Your task to perform on an android device: turn off javascript in the chrome app Image 0: 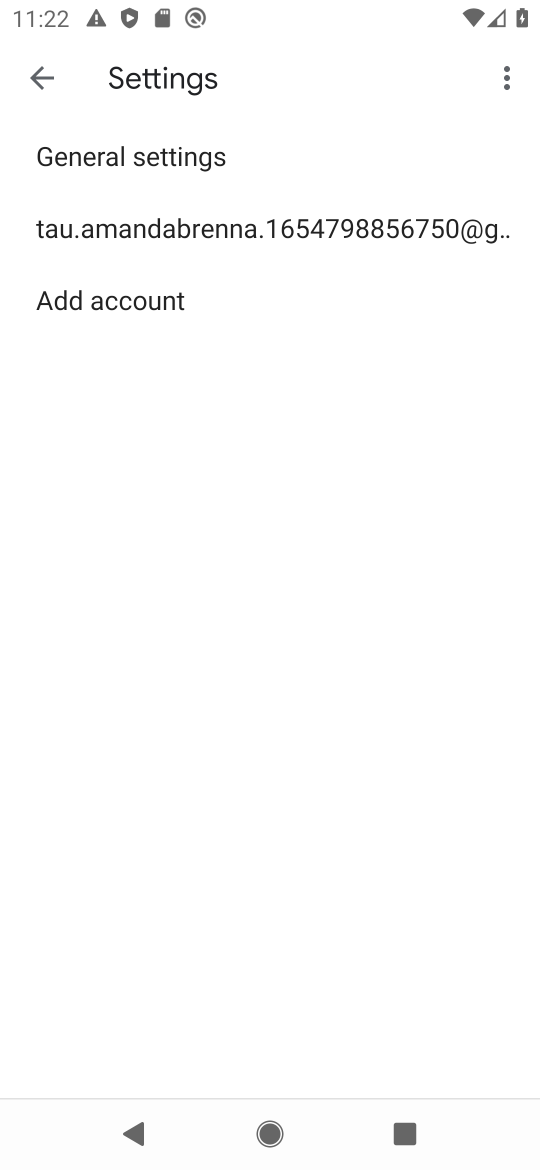
Step 0: press home button
Your task to perform on an android device: turn off javascript in the chrome app Image 1: 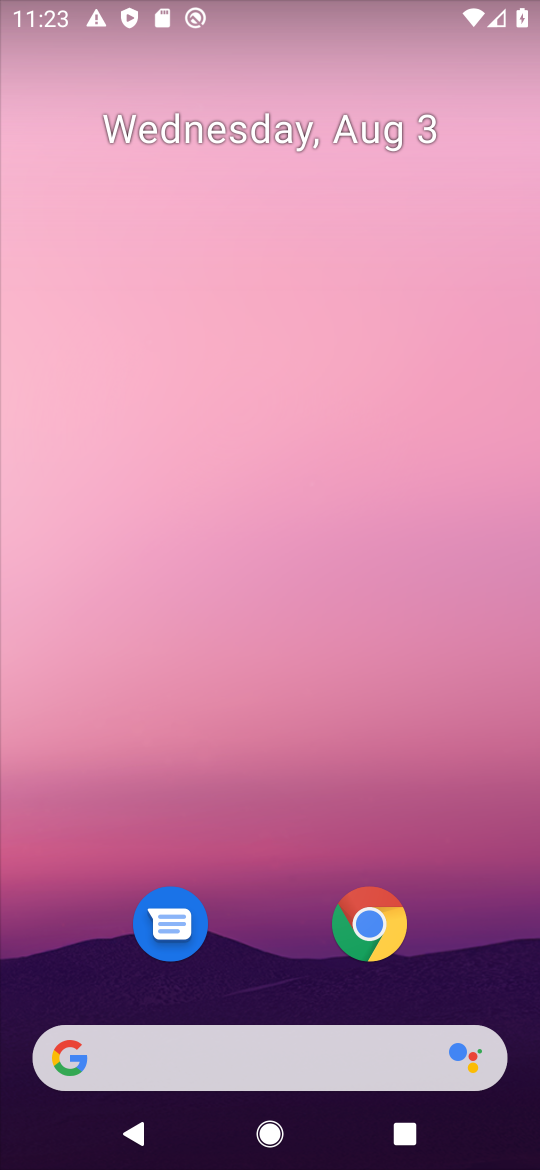
Step 1: click (360, 911)
Your task to perform on an android device: turn off javascript in the chrome app Image 2: 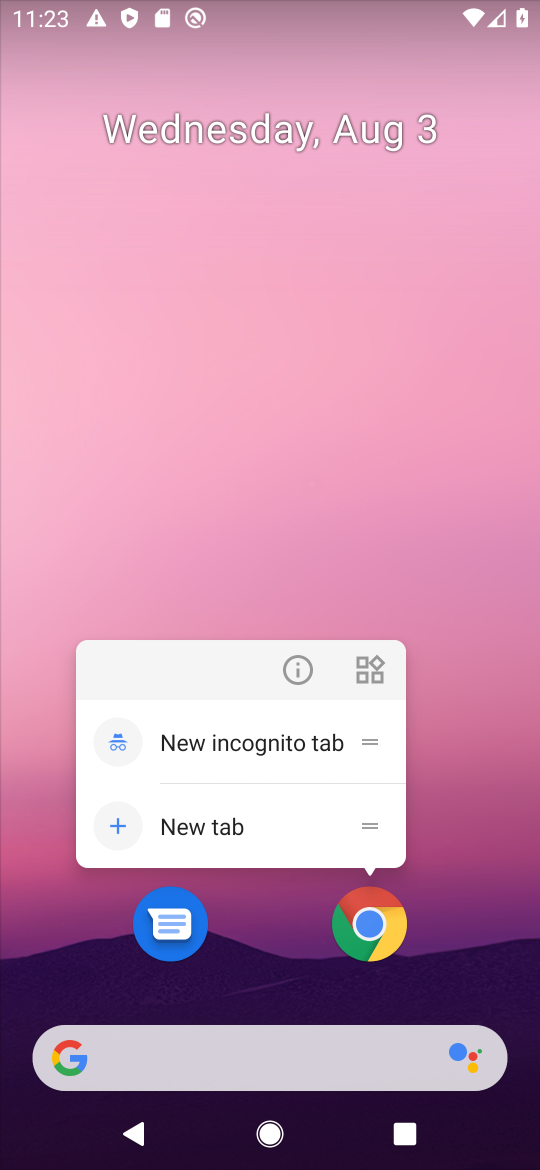
Step 2: click (393, 930)
Your task to perform on an android device: turn off javascript in the chrome app Image 3: 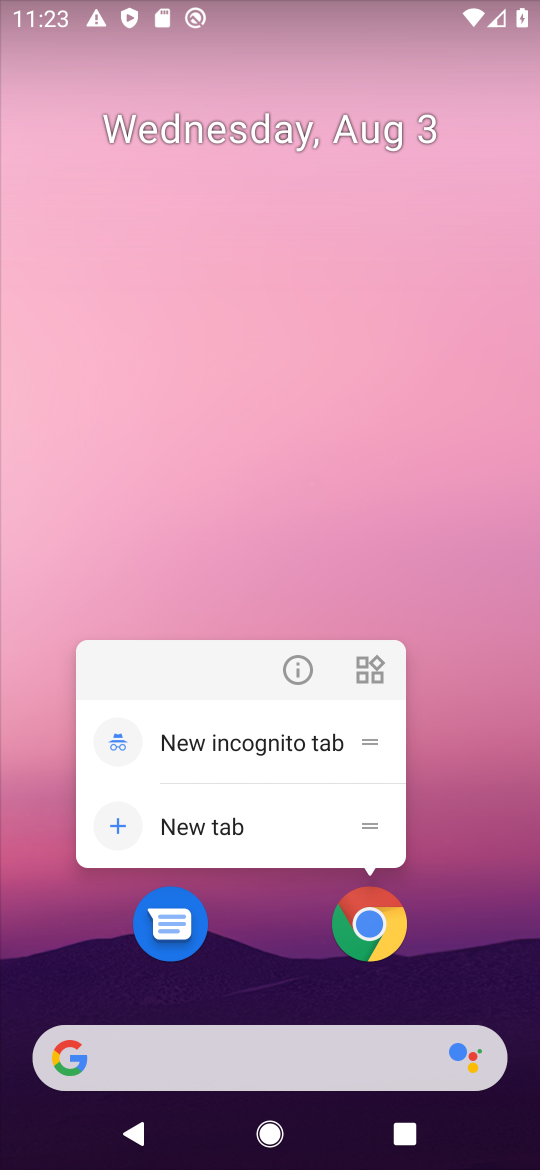
Step 3: click (372, 918)
Your task to perform on an android device: turn off javascript in the chrome app Image 4: 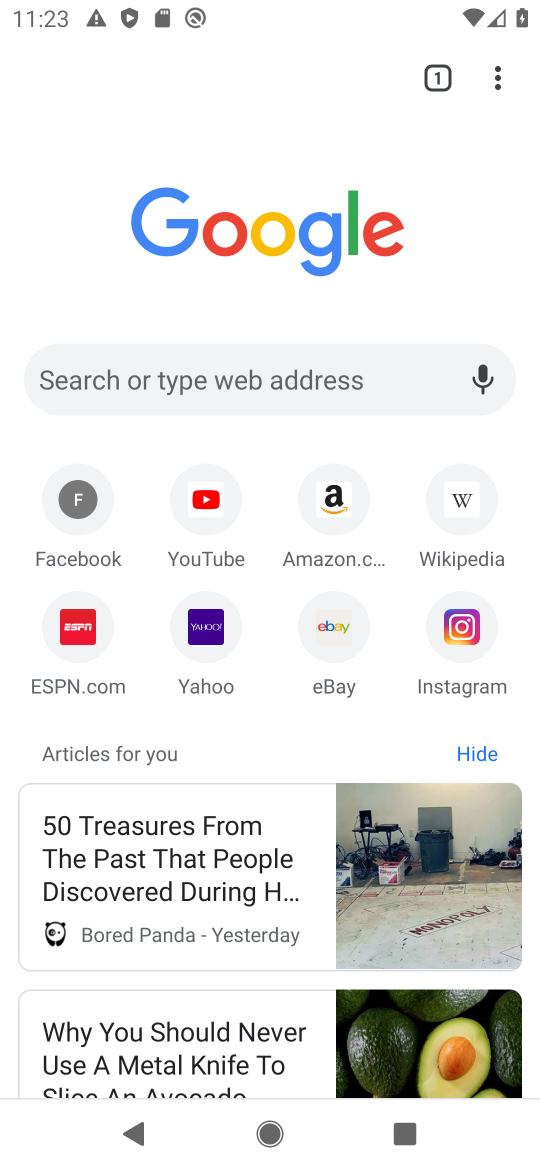
Step 4: click (498, 79)
Your task to perform on an android device: turn off javascript in the chrome app Image 5: 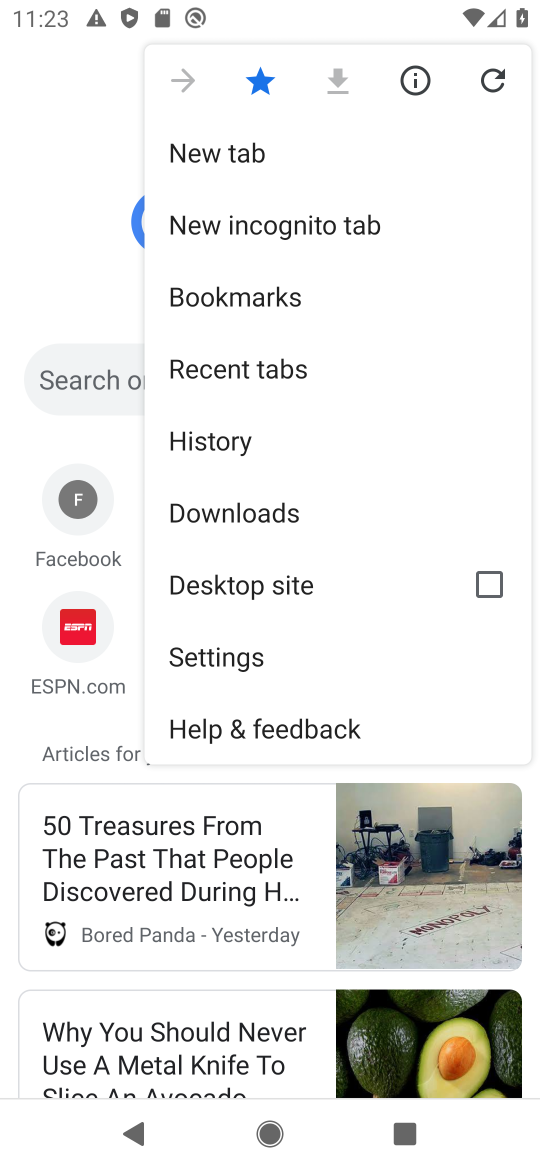
Step 5: click (228, 667)
Your task to perform on an android device: turn off javascript in the chrome app Image 6: 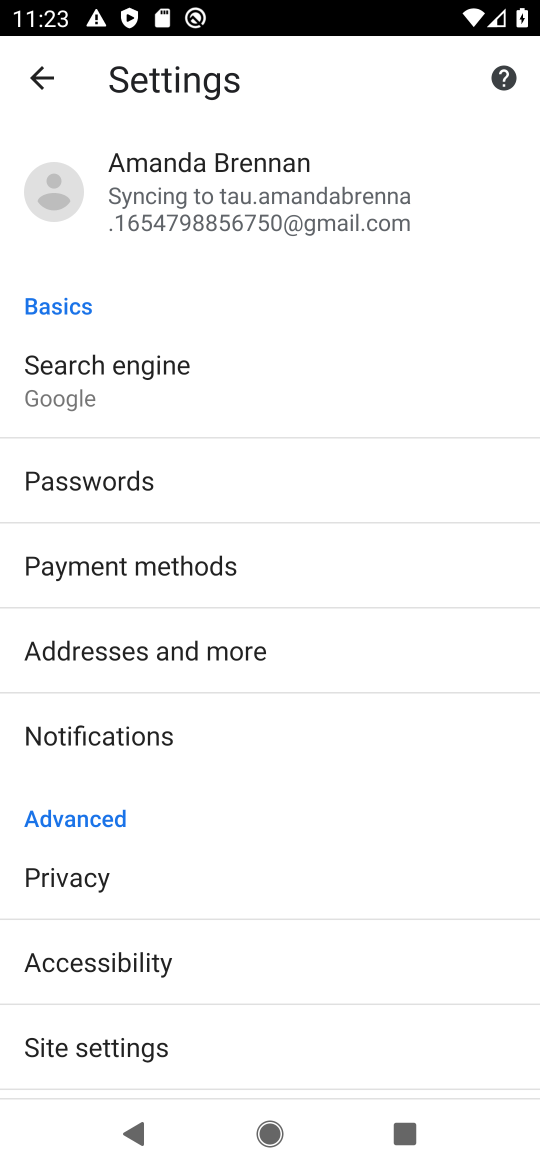
Step 6: click (91, 1052)
Your task to perform on an android device: turn off javascript in the chrome app Image 7: 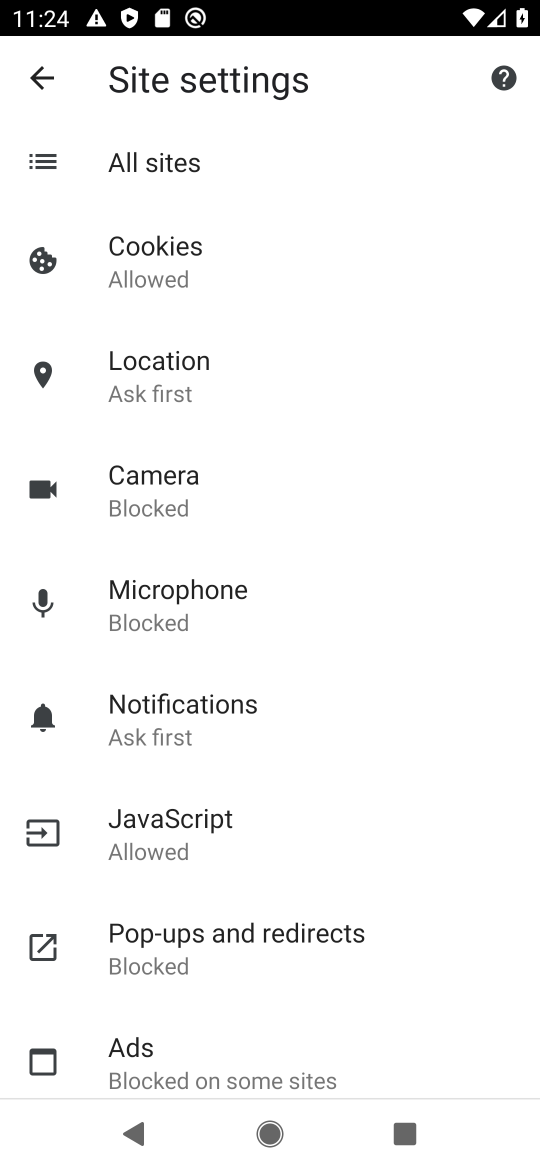
Step 7: drag from (234, 880) to (370, 237)
Your task to perform on an android device: turn off javascript in the chrome app Image 8: 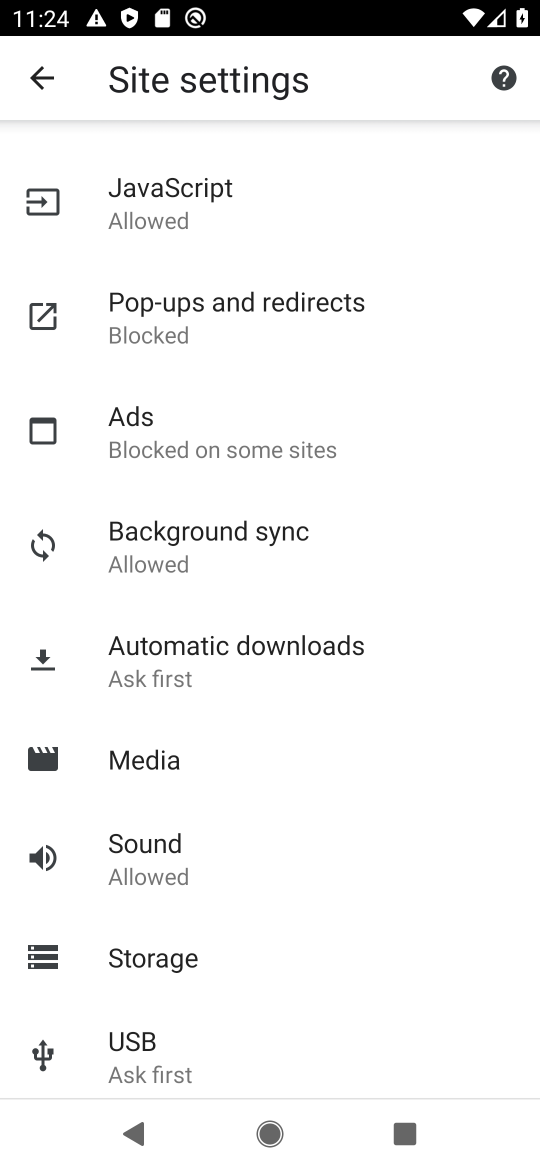
Step 8: click (172, 191)
Your task to perform on an android device: turn off javascript in the chrome app Image 9: 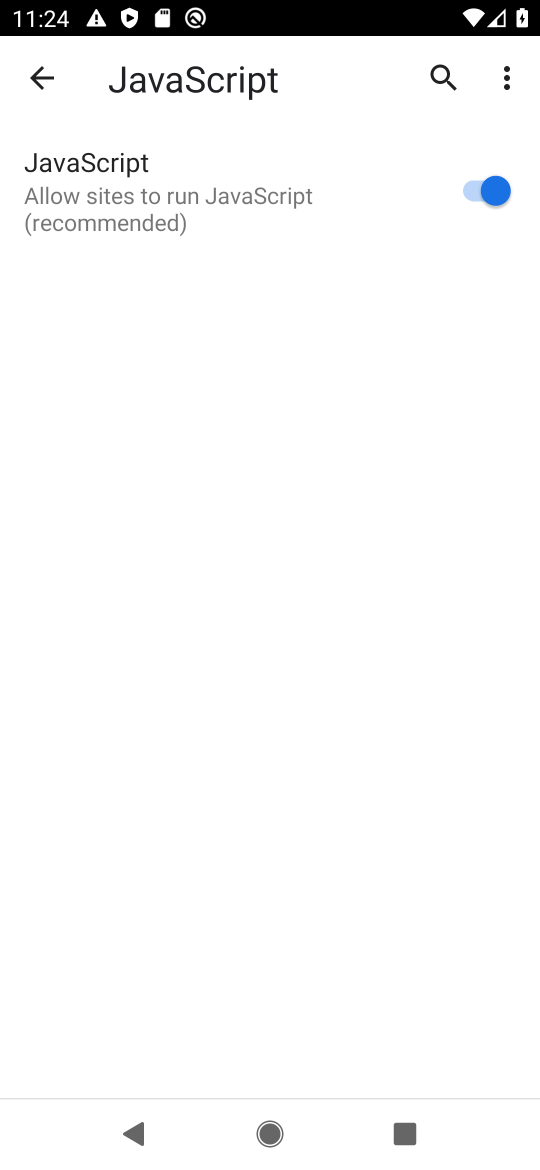
Step 9: click (478, 182)
Your task to perform on an android device: turn off javascript in the chrome app Image 10: 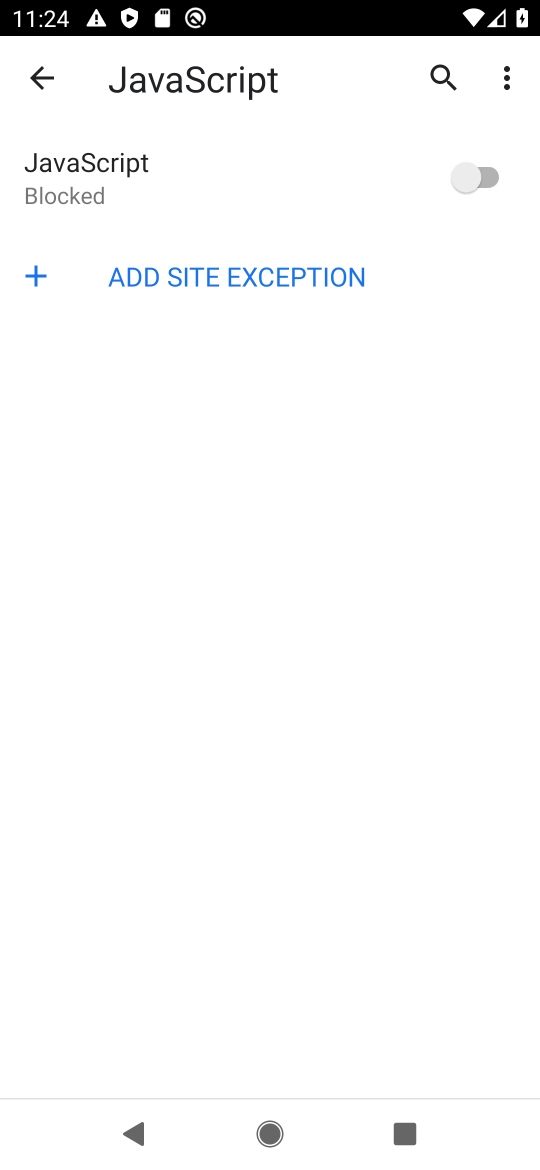
Step 10: task complete